Your task to perform on an android device: set the timer Image 0: 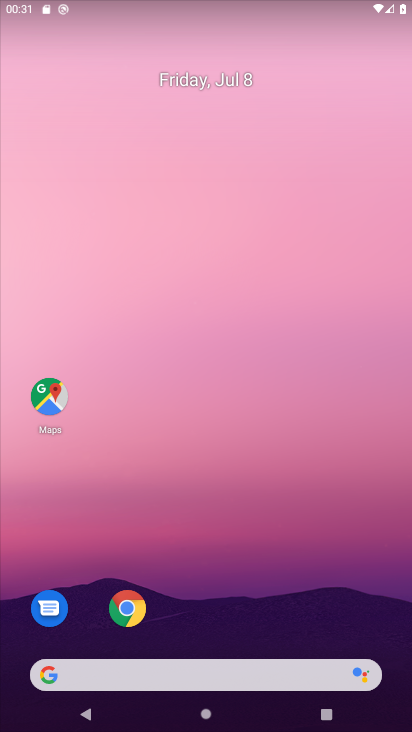
Step 0: drag from (288, 635) to (255, 158)
Your task to perform on an android device: set the timer Image 1: 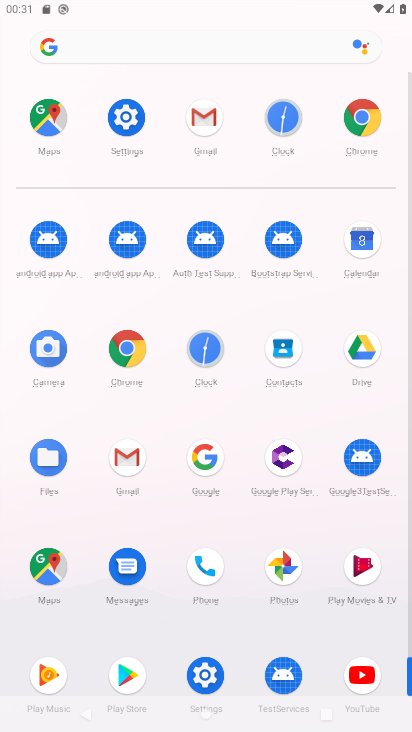
Step 1: click (200, 346)
Your task to perform on an android device: set the timer Image 2: 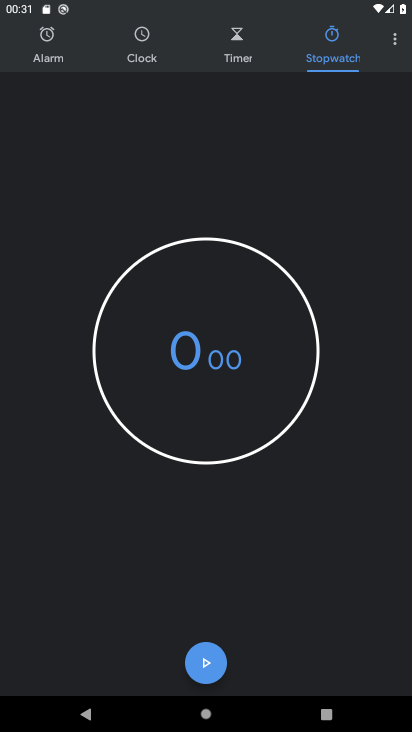
Step 2: click (228, 28)
Your task to perform on an android device: set the timer Image 3: 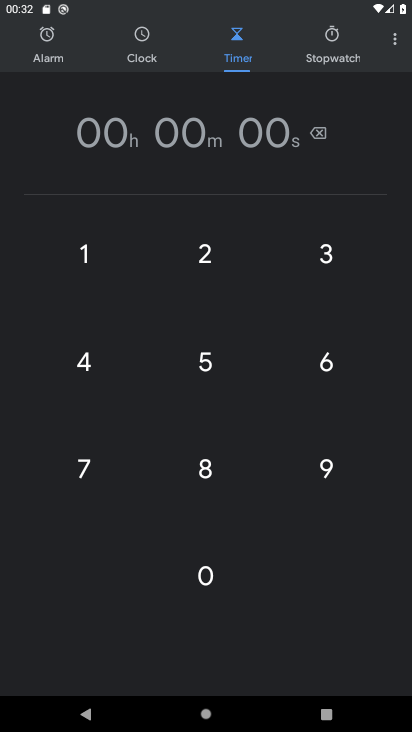
Step 3: task complete